Your task to perform on an android device: change text size in settings app Image 0: 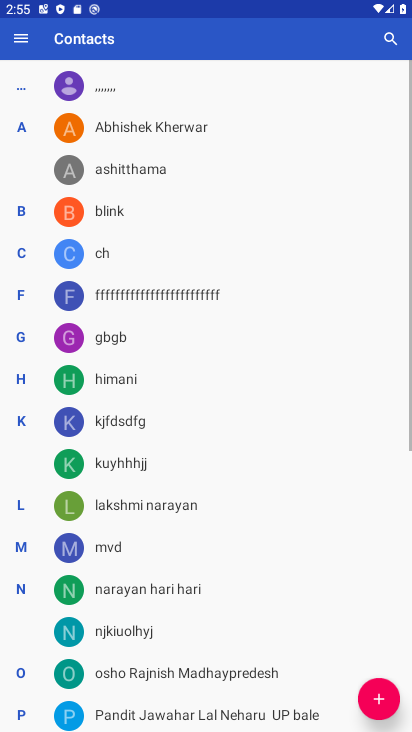
Step 0: press home button
Your task to perform on an android device: change text size in settings app Image 1: 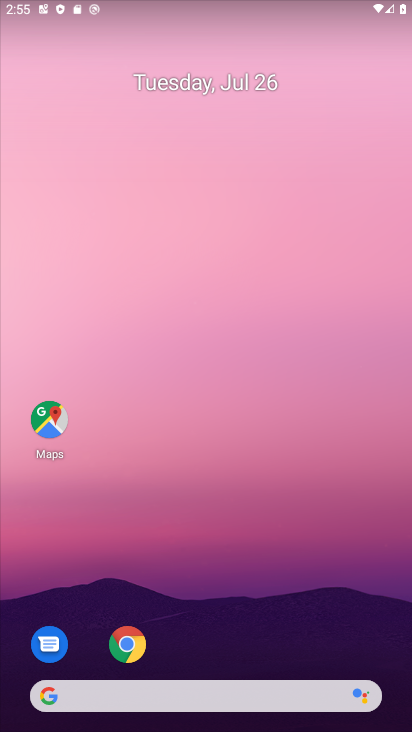
Step 1: drag from (329, 615) to (332, 102)
Your task to perform on an android device: change text size in settings app Image 2: 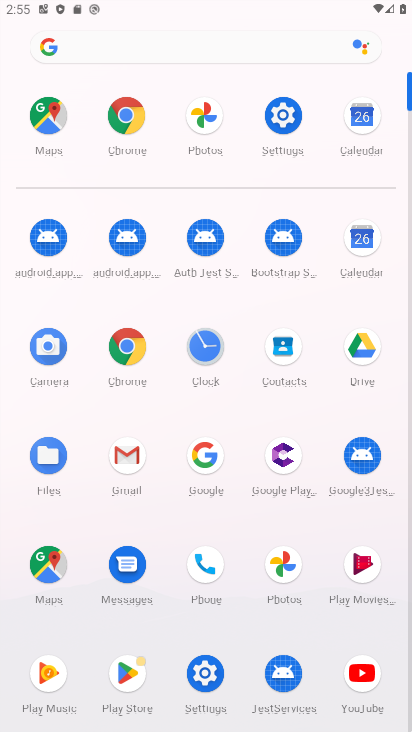
Step 2: click (287, 111)
Your task to perform on an android device: change text size in settings app Image 3: 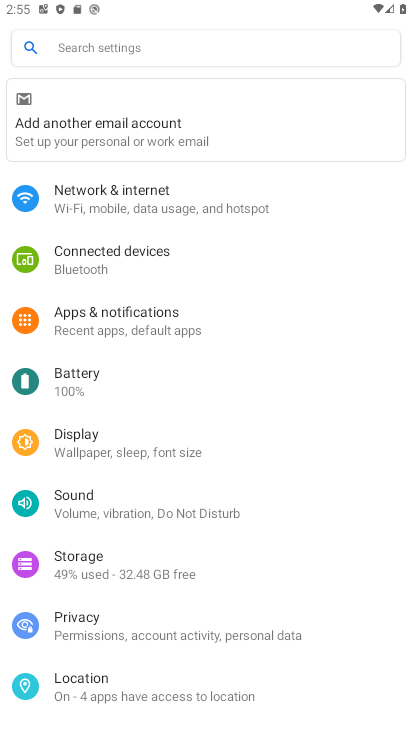
Step 3: click (85, 440)
Your task to perform on an android device: change text size in settings app Image 4: 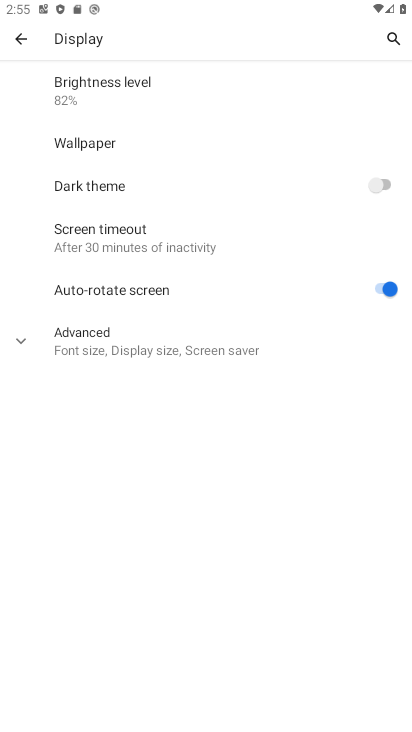
Step 4: click (28, 341)
Your task to perform on an android device: change text size in settings app Image 5: 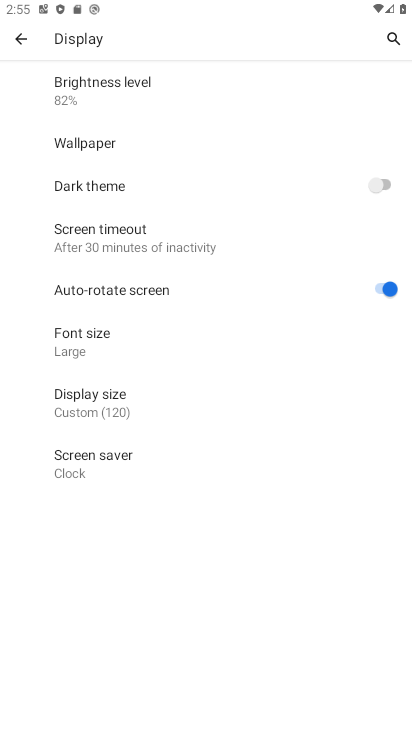
Step 5: click (111, 348)
Your task to perform on an android device: change text size in settings app Image 6: 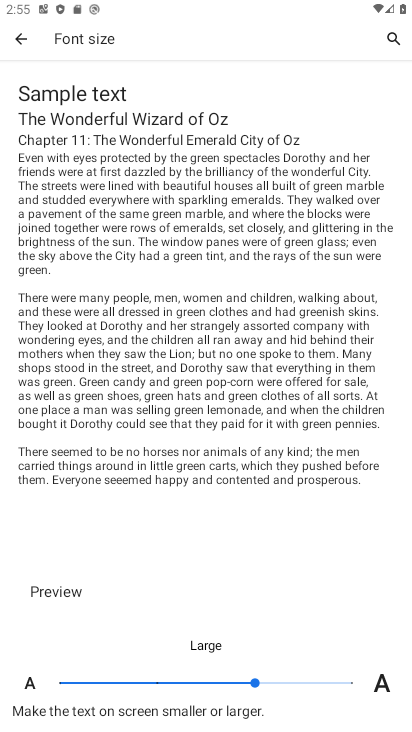
Step 6: click (351, 683)
Your task to perform on an android device: change text size in settings app Image 7: 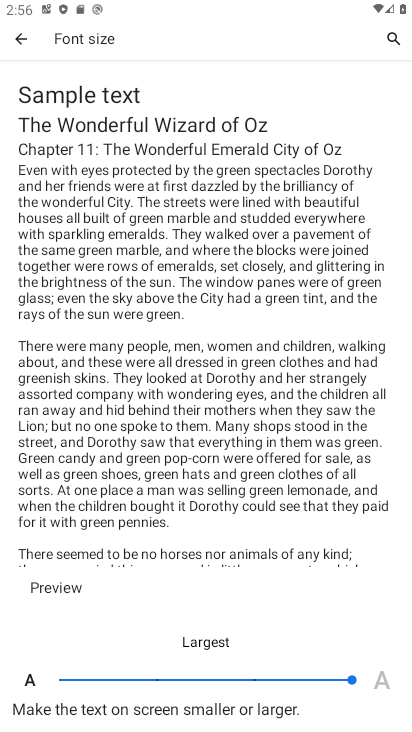
Step 7: task complete